Your task to perform on an android device: see tabs open on other devices in the chrome app Image 0: 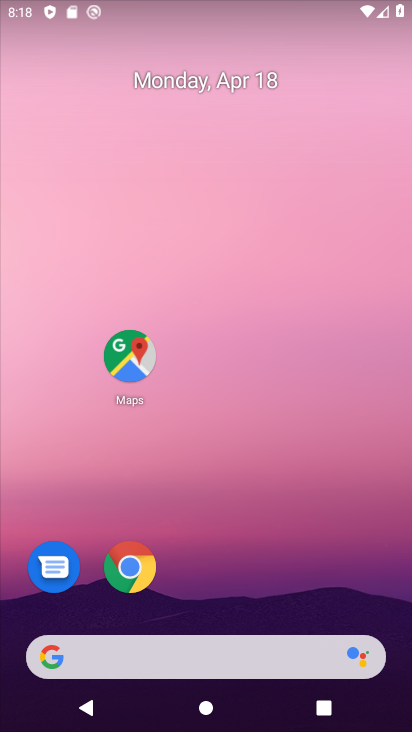
Step 0: click (132, 560)
Your task to perform on an android device: see tabs open on other devices in the chrome app Image 1: 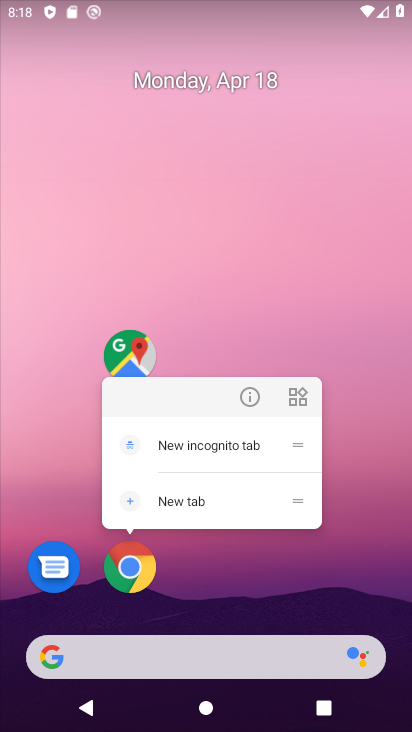
Step 1: click (138, 581)
Your task to perform on an android device: see tabs open on other devices in the chrome app Image 2: 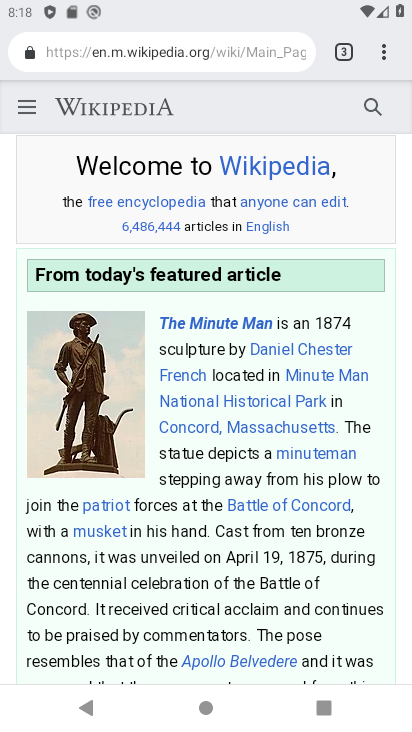
Step 2: click (385, 64)
Your task to perform on an android device: see tabs open on other devices in the chrome app Image 3: 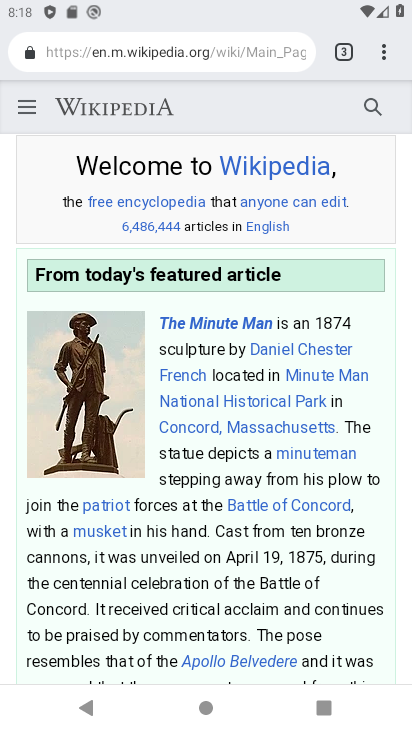
Step 3: click (385, 64)
Your task to perform on an android device: see tabs open on other devices in the chrome app Image 4: 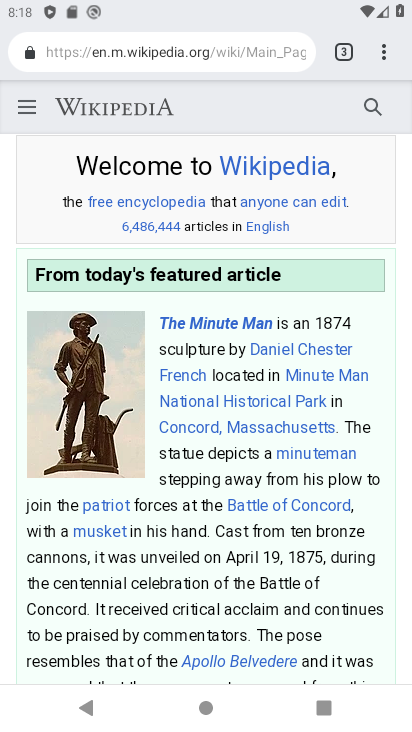
Step 4: click (384, 69)
Your task to perform on an android device: see tabs open on other devices in the chrome app Image 5: 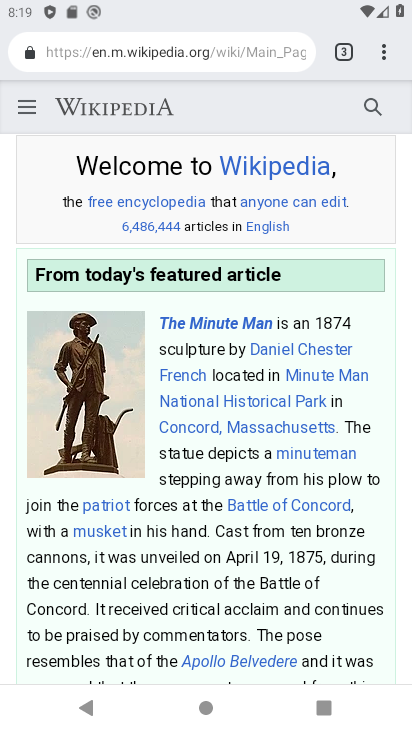
Step 5: click (386, 53)
Your task to perform on an android device: see tabs open on other devices in the chrome app Image 6: 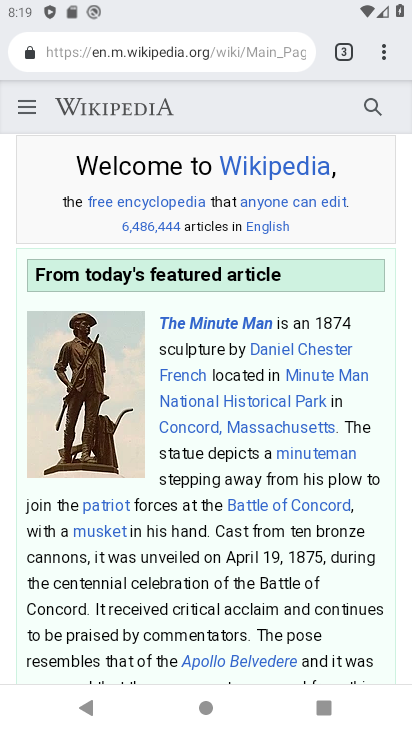
Step 6: click (386, 53)
Your task to perform on an android device: see tabs open on other devices in the chrome app Image 7: 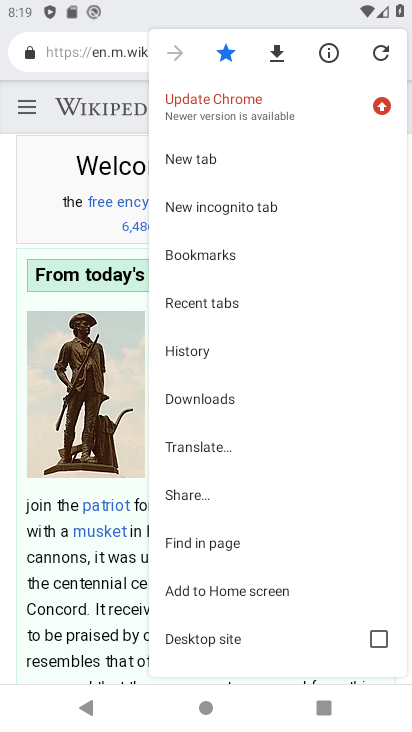
Step 7: click (220, 168)
Your task to perform on an android device: see tabs open on other devices in the chrome app Image 8: 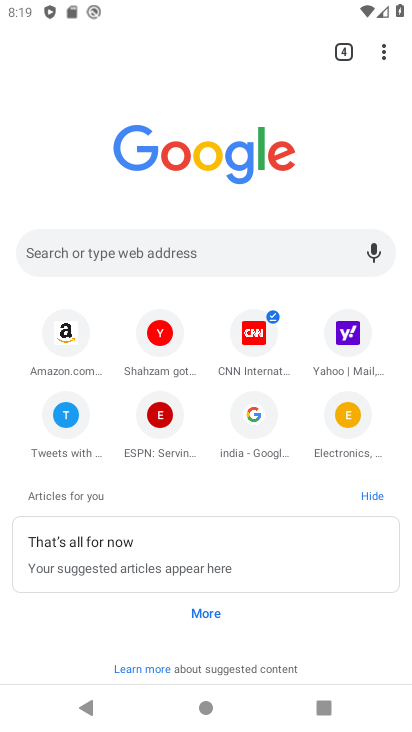
Step 8: task complete